Your task to perform on an android device: turn off priority inbox in the gmail app Image 0: 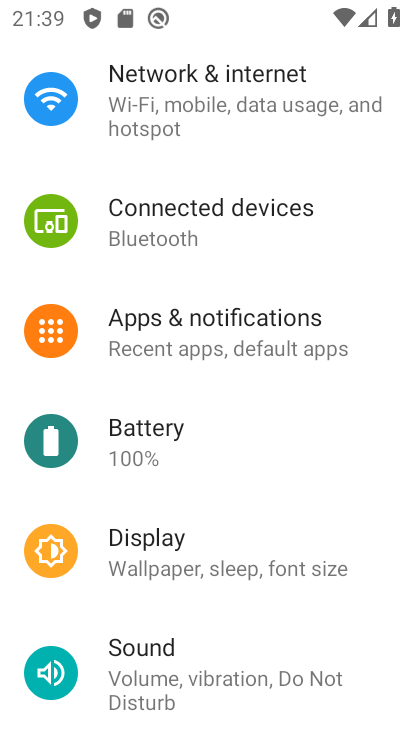
Step 0: press home button
Your task to perform on an android device: turn off priority inbox in the gmail app Image 1: 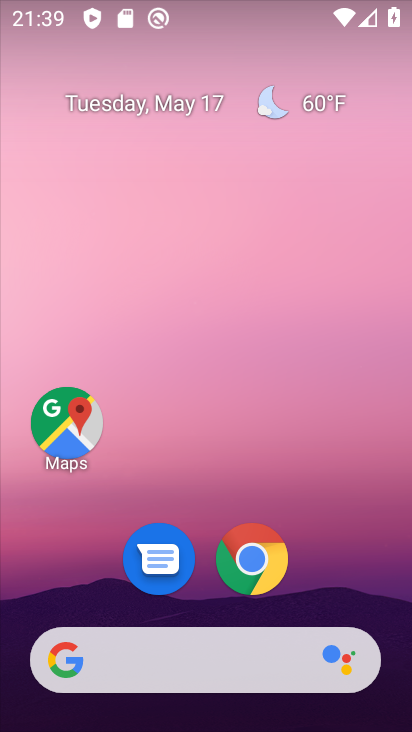
Step 1: drag from (360, 536) to (298, 184)
Your task to perform on an android device: turn off priority inbox in the gmail app Image 2: 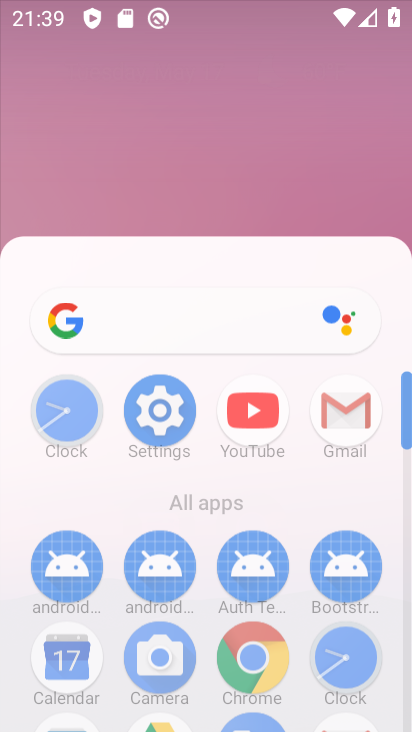
Step 2: click (298, 164)
Your task to perform on an android device: turn off priority inbox in the gmail app Image 3: 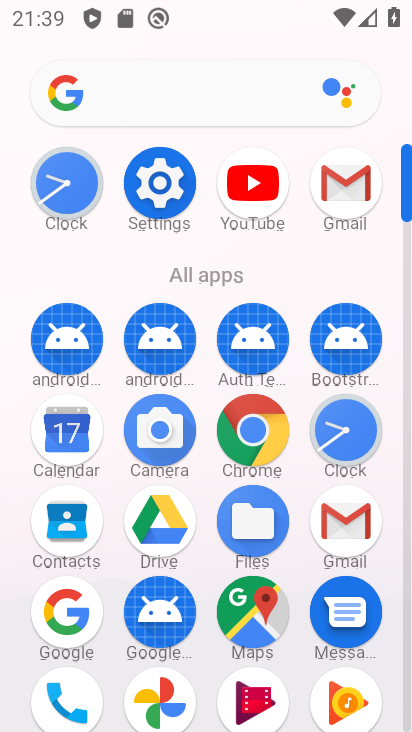
Step 3: click (349, 181)
Your task to perform on an android device: turn off priority inbox in the gmail app Image 4: 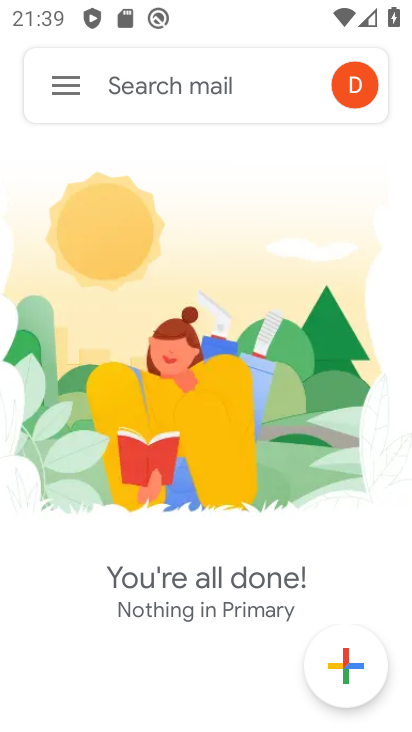
Step 4: click (54, 76)
Your task to perform on an android device: turn off priority inbox in the gmail app Image 5: 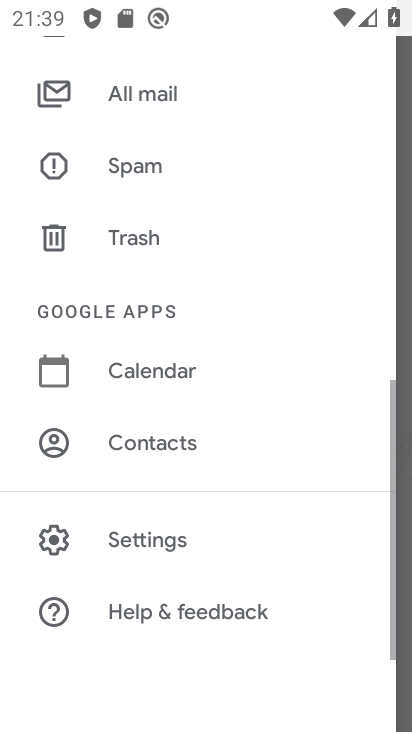
Step 5: drag from (205, 476) to (314, 202)
Your task to perform on an android device: turn off priority inbox in the gmail app Image 6: 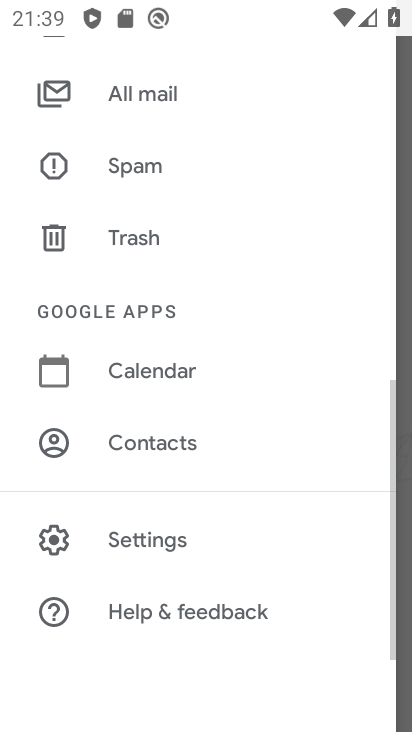
Step 6: click (150, 532)
Your task to perform on an android device: turn off priority inbox in the gmail app Image 7: 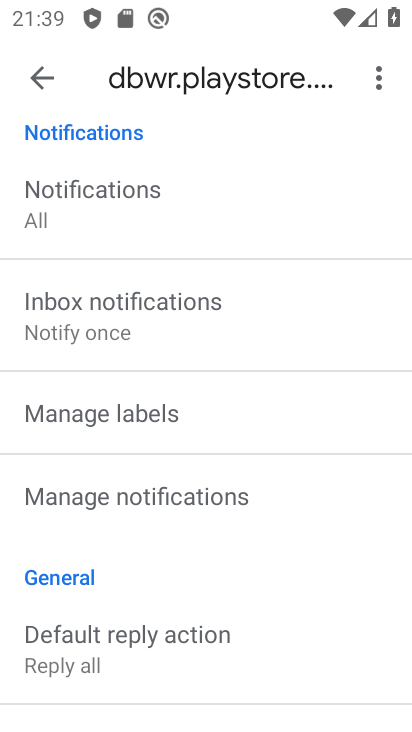
Step 7: drag from (228, 578) to (275, 688)
Your task to perform on an android device: turn off priority inbox in the gmail app Image 8: 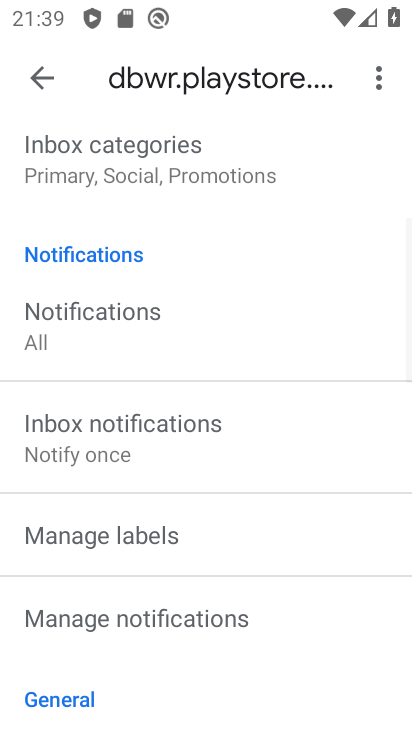
Step 8: drag from (284, 323) to (276, 668)
Your task to perform on an android device: turn off priority inbox in the gmail app Image 9: 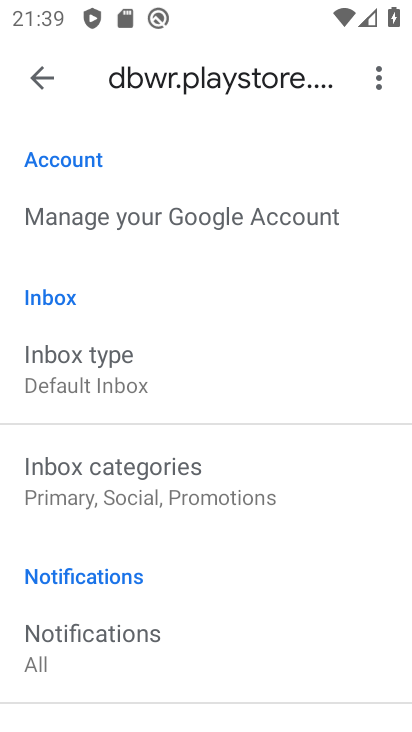
Step 9: click (127, 379)
Your task to perform on an android device: turn off priority inbox in the gmail app Image 10: 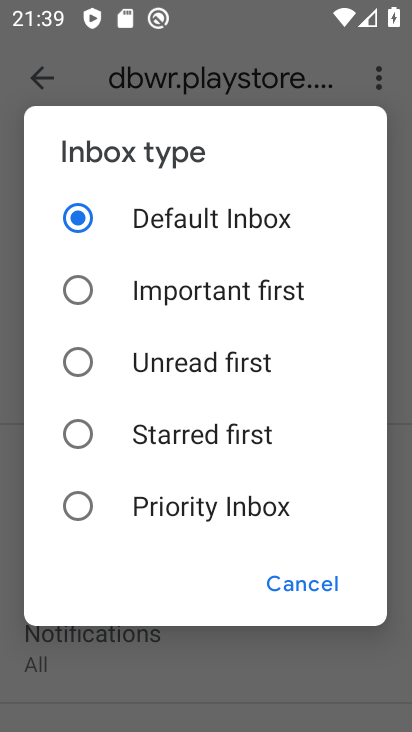
Step 10: task complete